Your task to perform on an android device: check google app version Image 0: 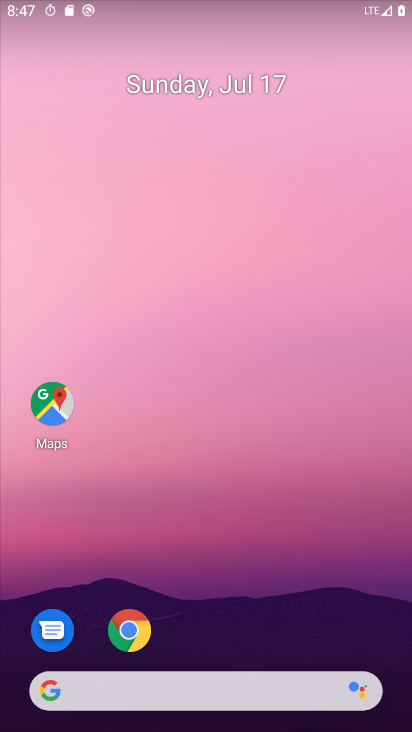
Step 0: click (54, 690)
Your task to perform on an android device: check google app version Image 1: 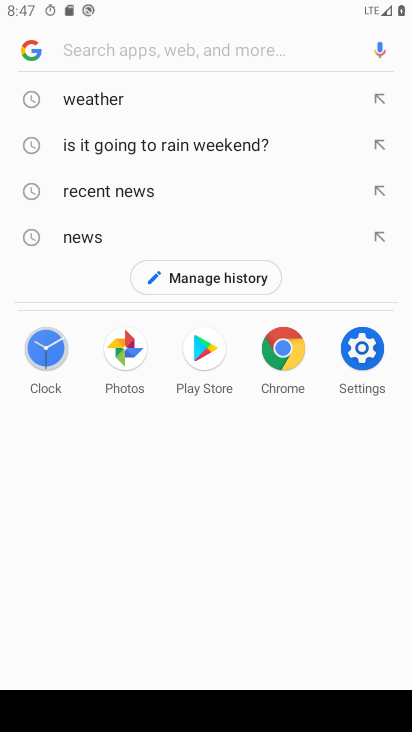
Step 1: click (23, 43)
Your task to perform on an android device: check google app version Image 2: 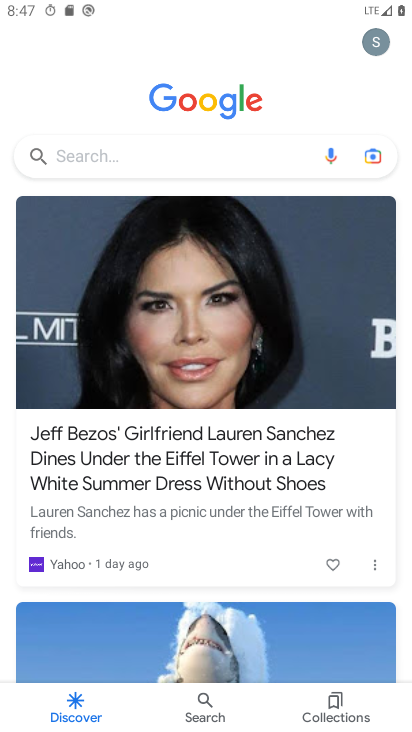
Step 2: click (377, 40)
Your task to perform on an android device: check google app version Image 3: 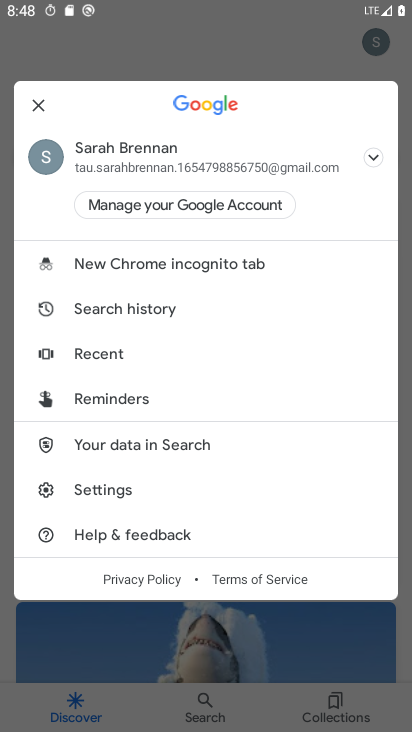
Step 3: click (121, 491)
Your task to perform on an android device: check google app version Image 4: 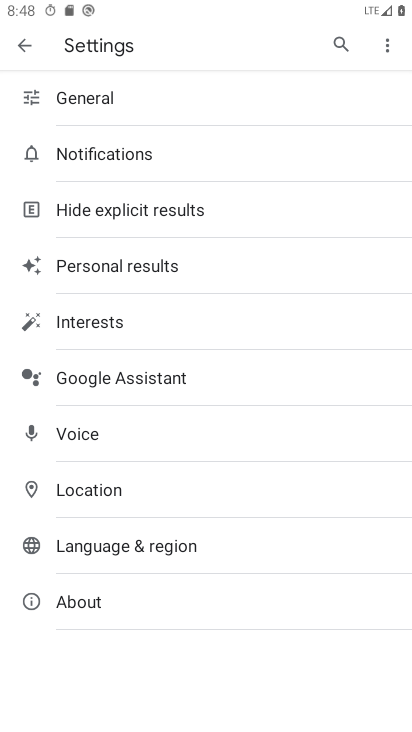
Step 4: click (113, 606)
Your task to perform on an android device: check google app version Image 5: 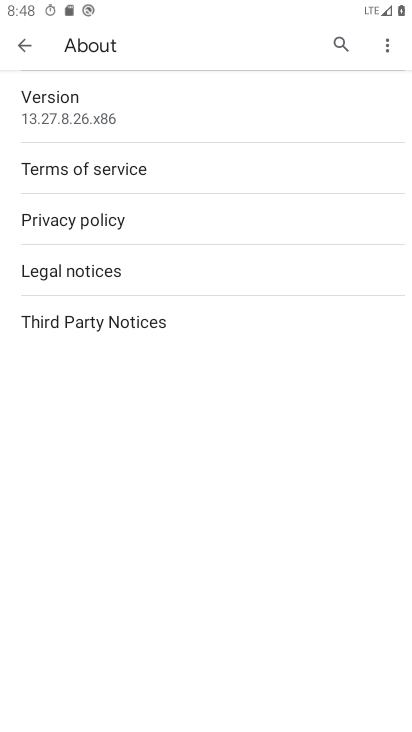
Step 5: task complete